Your task to perform on an android device: Go to Google Image 0: 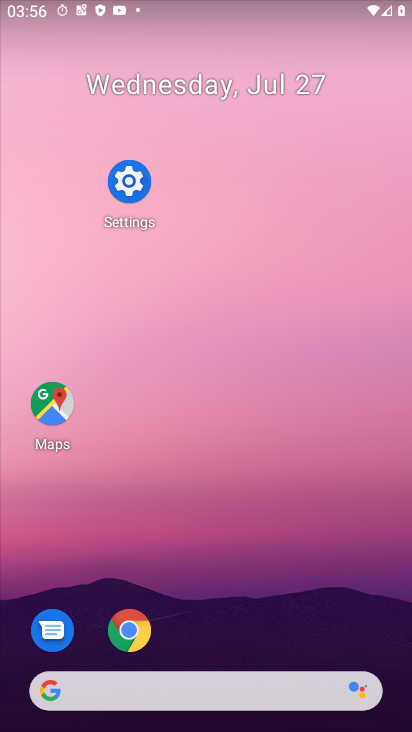
Step 0: click (408, 689)
Your task to perform on an android device: Go to Google Image 1: 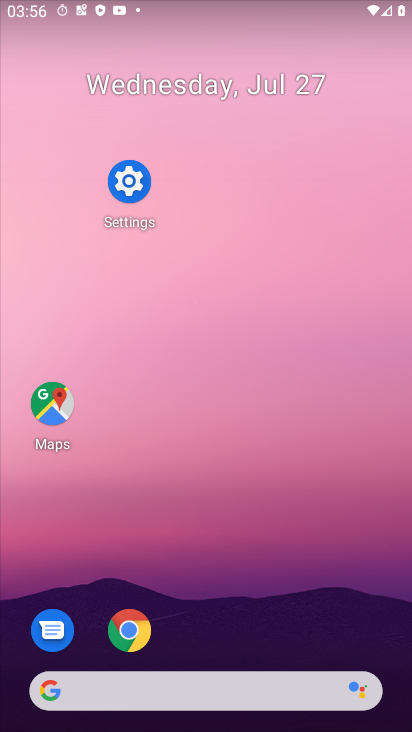
Step 1: drag from (314, 478) to (302, 358)
Your task to perform on an android device: Go to Google Image 2: 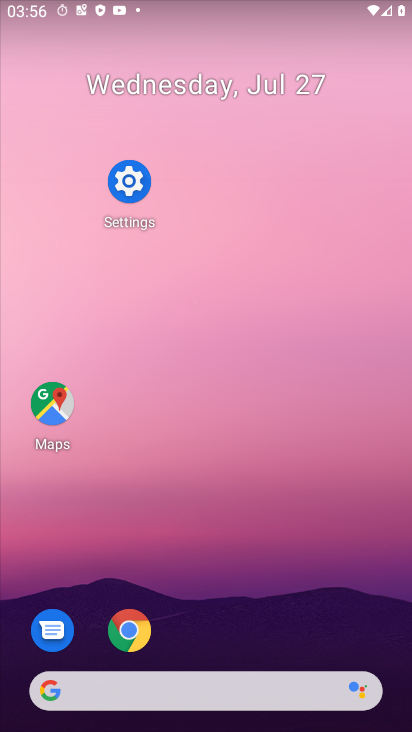
Step 2: drag from (226, 469) to (192, 298)
Your task to perform on an android device: Go to Google Image 3: 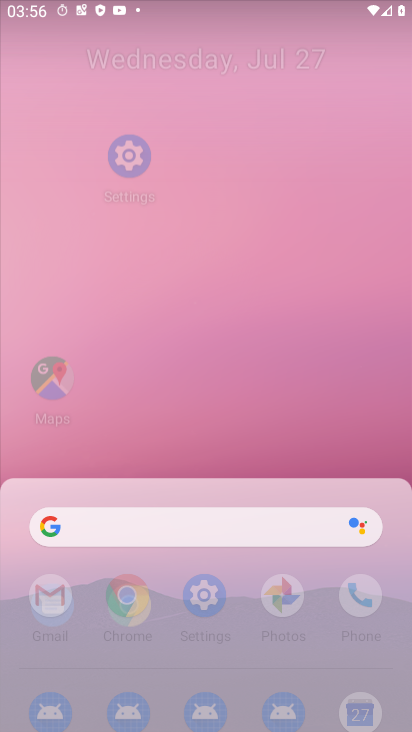
Step 3: drag from (290, 500) to (319, 205)
Your task to perform on an android device: Go to Google Image 4: 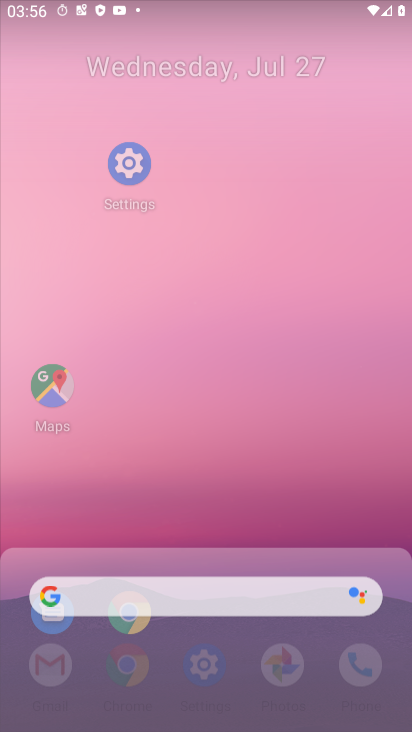
Step 4: drag from (235, 510) to (230, 182)
Your task to perform on an android device: Go to Google Image 5: 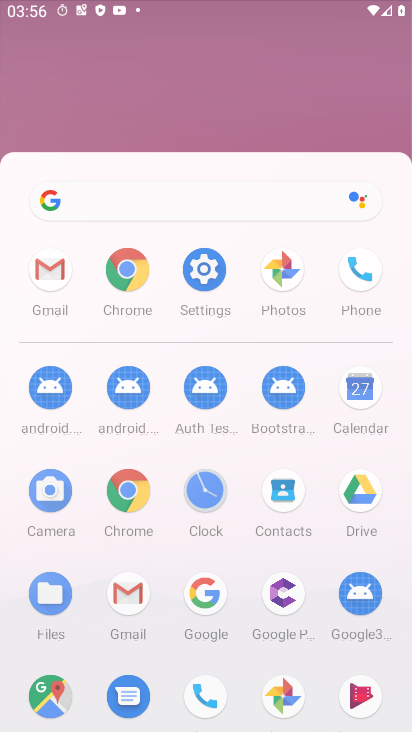
Step 5: drag from (253, 515) to (259, 75)
Your task to perform on an android device: Go to Google Image 6: 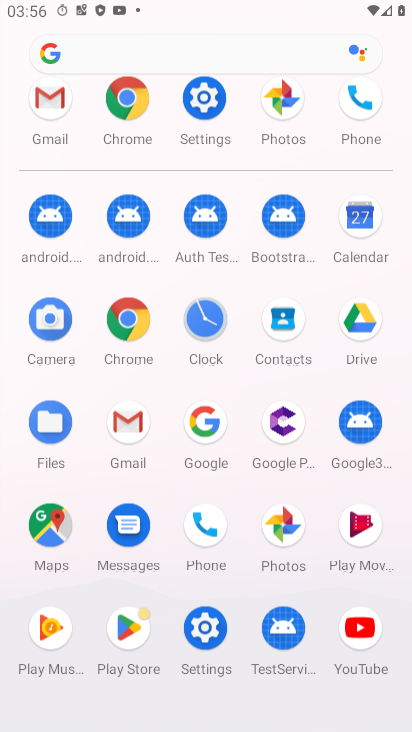
Step 6: drag from (248, 420) to (274, 34)
Your task to perform on an android device: Go to Google Image 7: 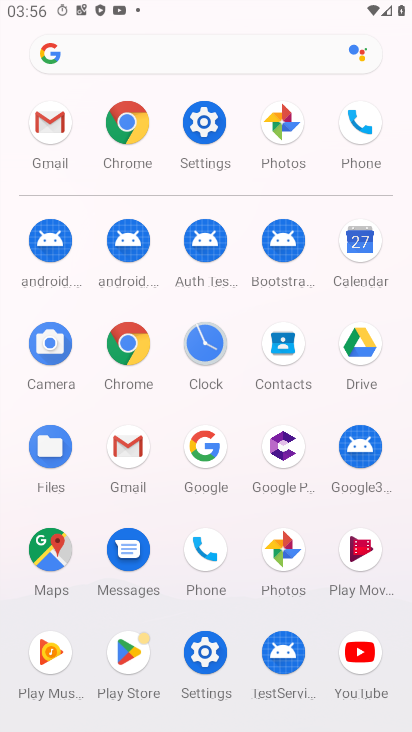
Step 7: click (205, 443)
Your task to perform on an android device: Go to Google Image 8: 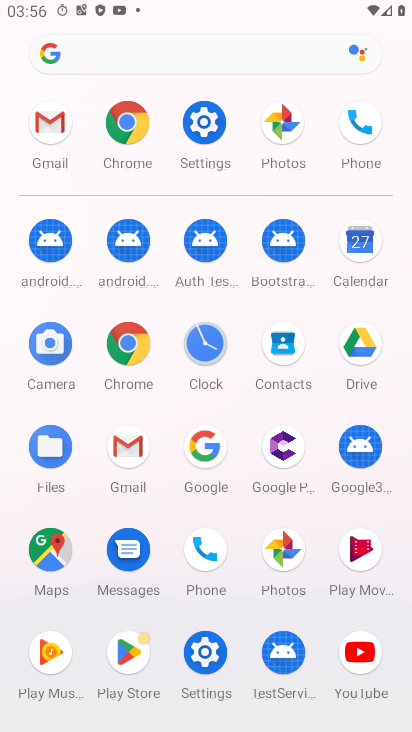
Step 8: click (212, 436)
Your task to perform on an android device: Go to Google Image 9: 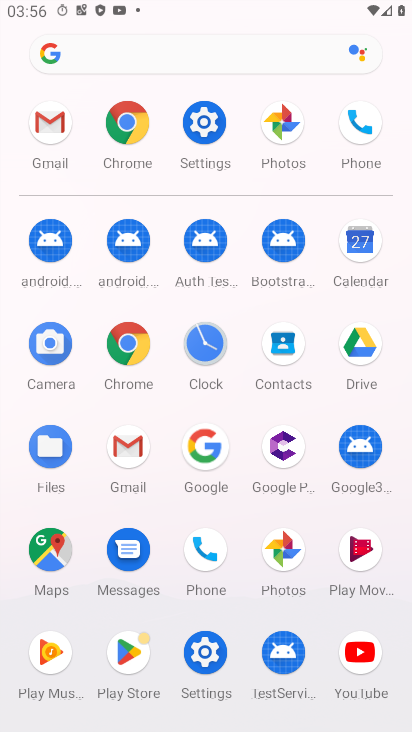
Step 9: click (212, 436)
Your task to perform on an android device: Go to Google Image 10: 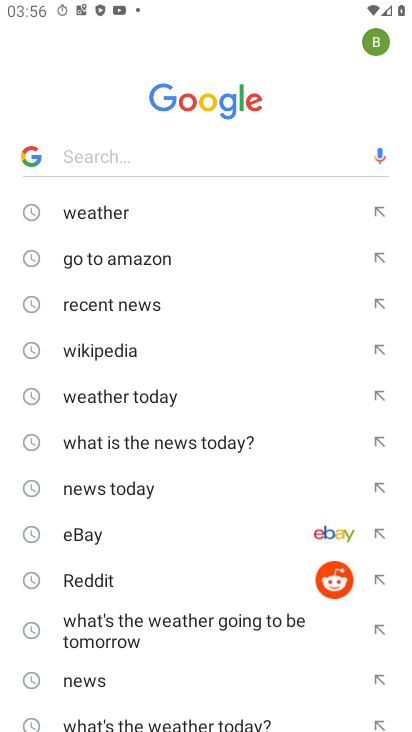
Step 10: click (205, 463)
Your task to perform on an android device: Go to Google Image 11: 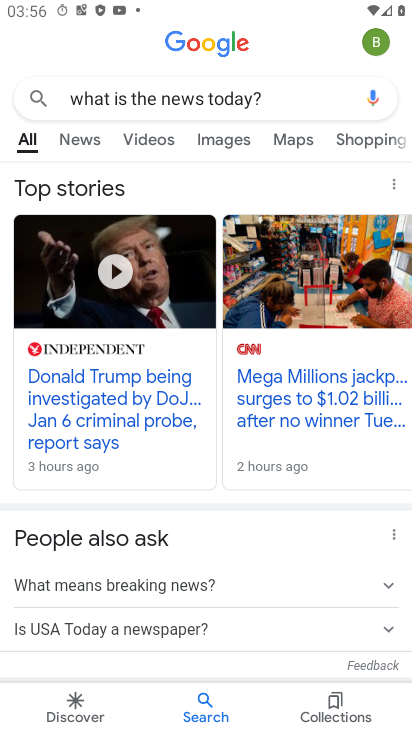
Step 11: task complete